Your task to perform on an android device: open app "LiveIn - Share Your Moment" (install if not already installed), go to login, and select forgot password Image 0: 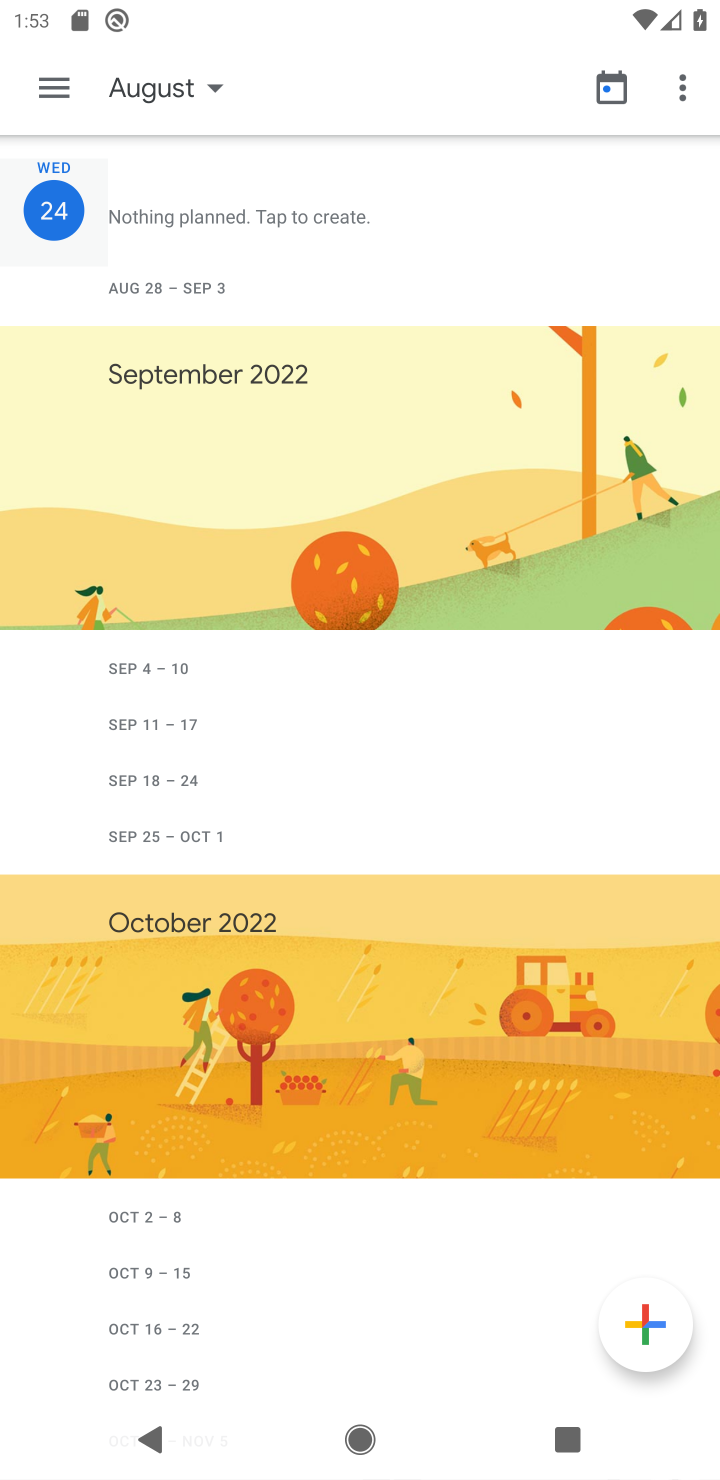
Step 0: press home button
Your task to perform on an android device: open app "LiveIn - Share Your Moment" (install if not already installed), go to login, and select forgot password Image 1: 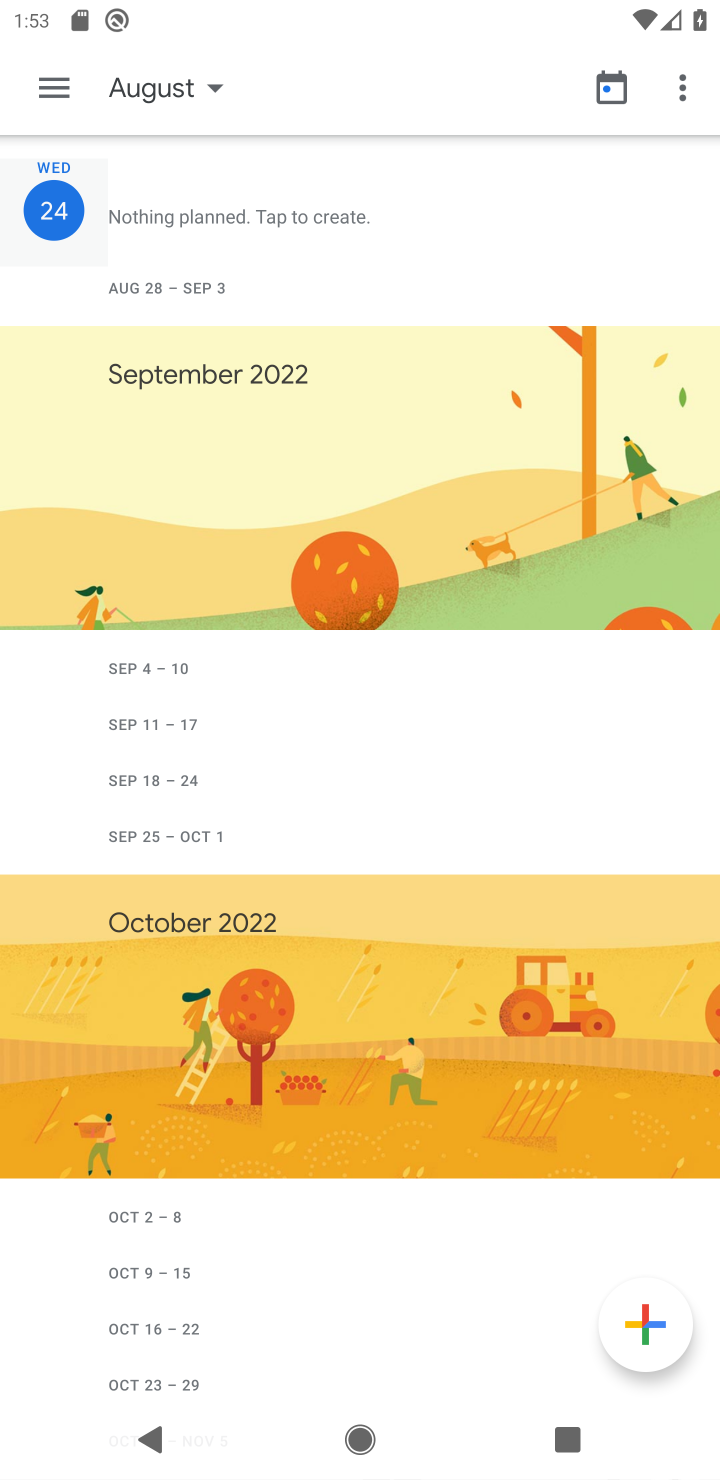
Step 1: press home button
Your task to perform on an android device: open app "LiveIn - Share Your Moment" (install if not already installed), go to login, and select forgot password Image 2: 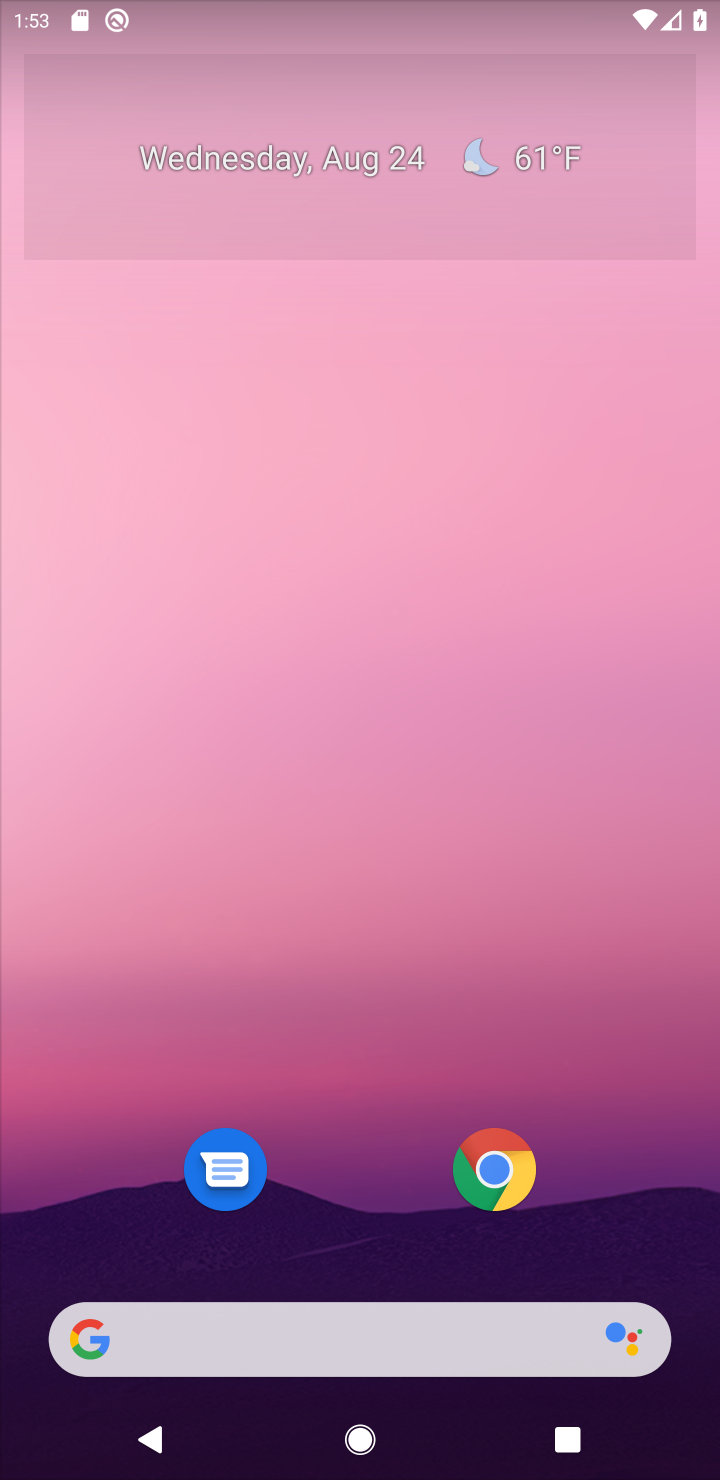
Step 2: drag from (427, 1269) to (275, 107)
Your task to perform on an android device: open app "LiveIn - Share Your Moment" (install if not already installed), go to login, and select forgot password Image 3: 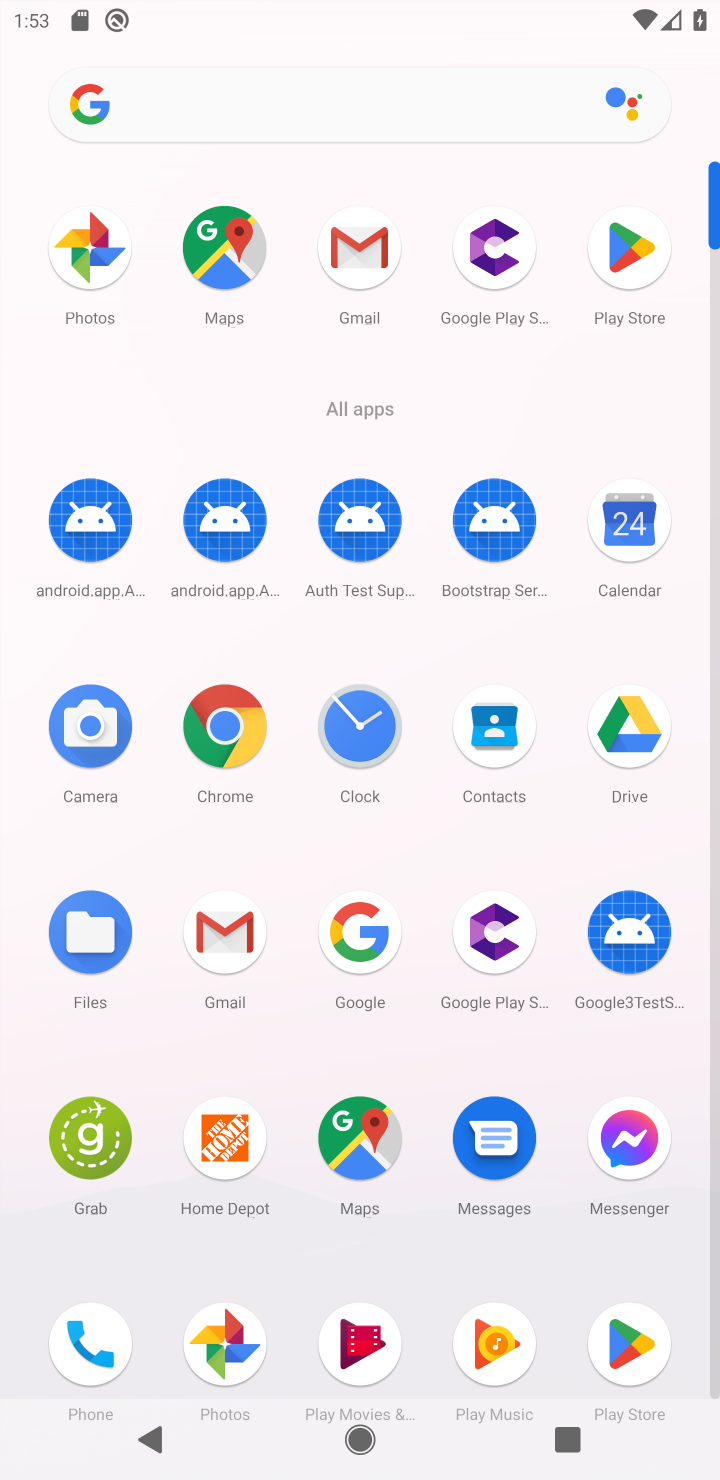
Step 3: click (659, 1380)
Your task to perform on an android device: open app "LiveIn - Share Your Moment" (install if not already installed), go to login, and select forgot password Image 4: 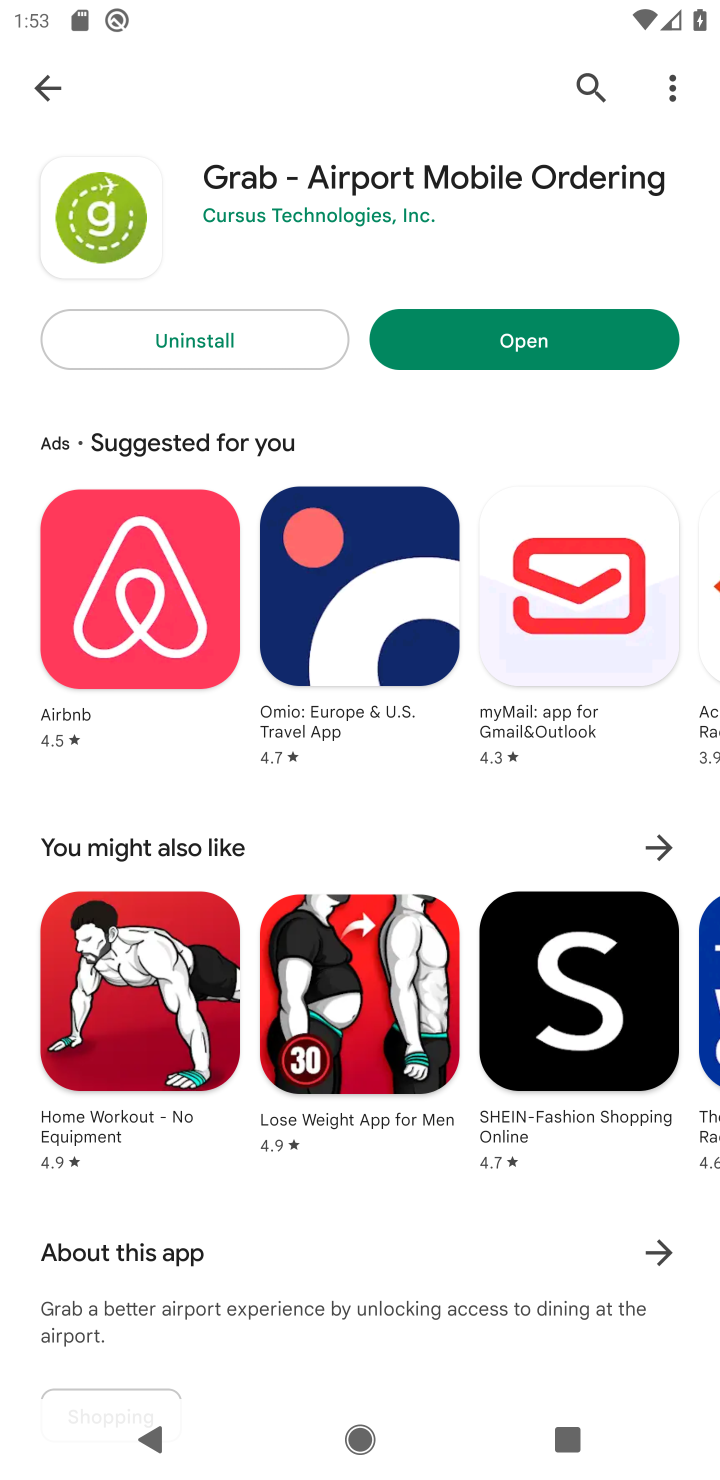
Step 4: click (35, 112)
Your task to perform on an android device: open app "LiveIn - Share Your Moment" (install if not already installed), go to login, and select forgot password Image 5: 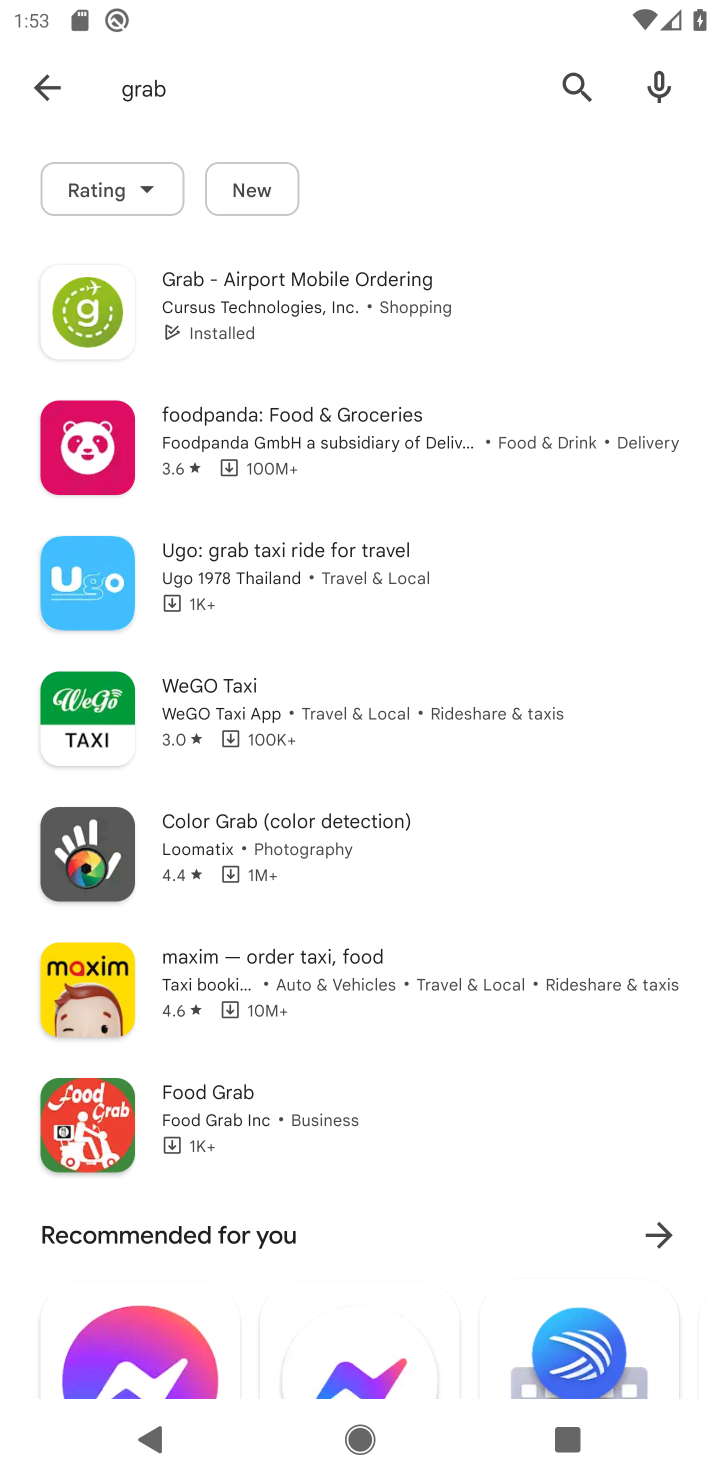
Step 5: click (577, 84)
Your task to perform on an android device: open app "LiveIn - Share Your Moment" (install if not already installed), go to login, and select forgot password Image 6: 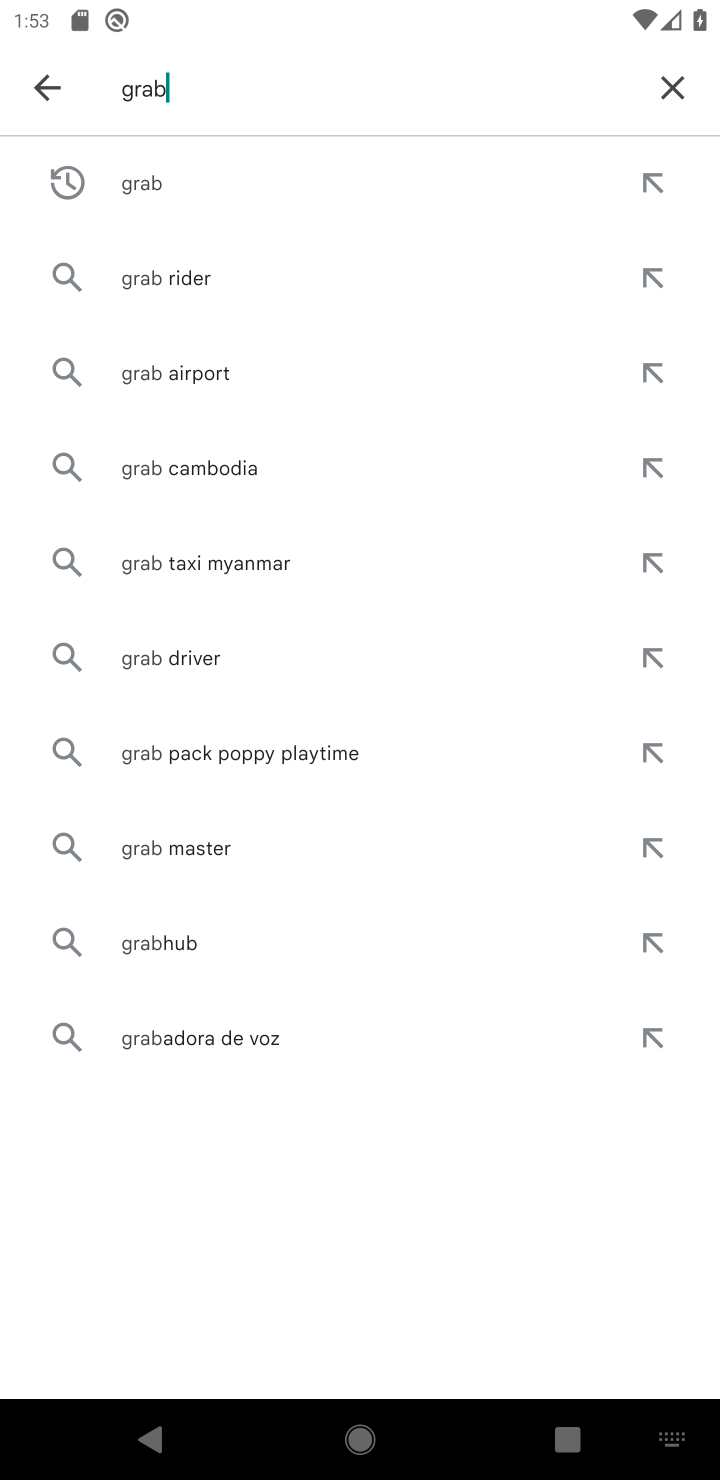
Step 6: click (664, 86)
Your task to perform on an android device: open app "LiveIn - Share Your Moment" (install if not already installed), go to login, and select forgot password Image 7: 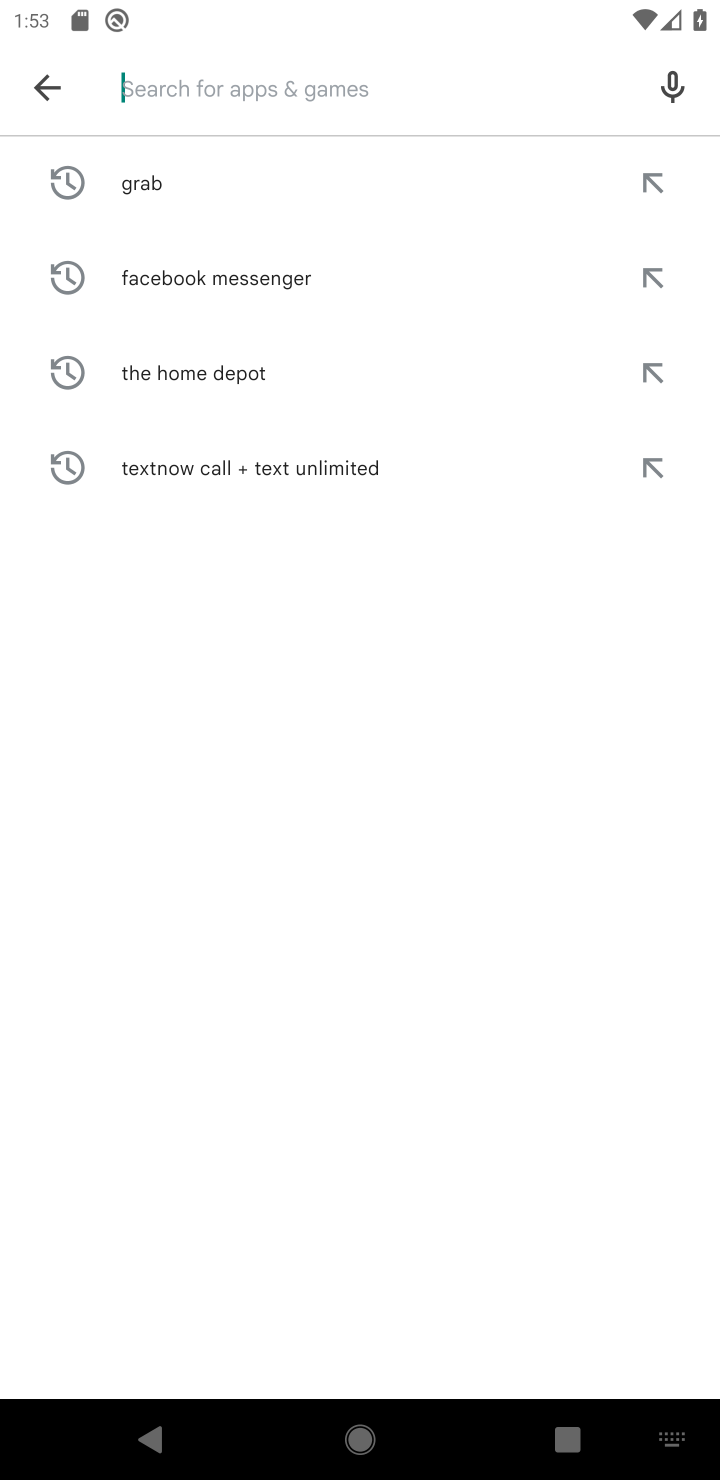
Step 7: type "LiveIn - Share Your Momen"
Your task to perform on an android device: open app "LiveIn - Share Your Moment" (install if not already installed), go to login, and select forgot password Image 8: 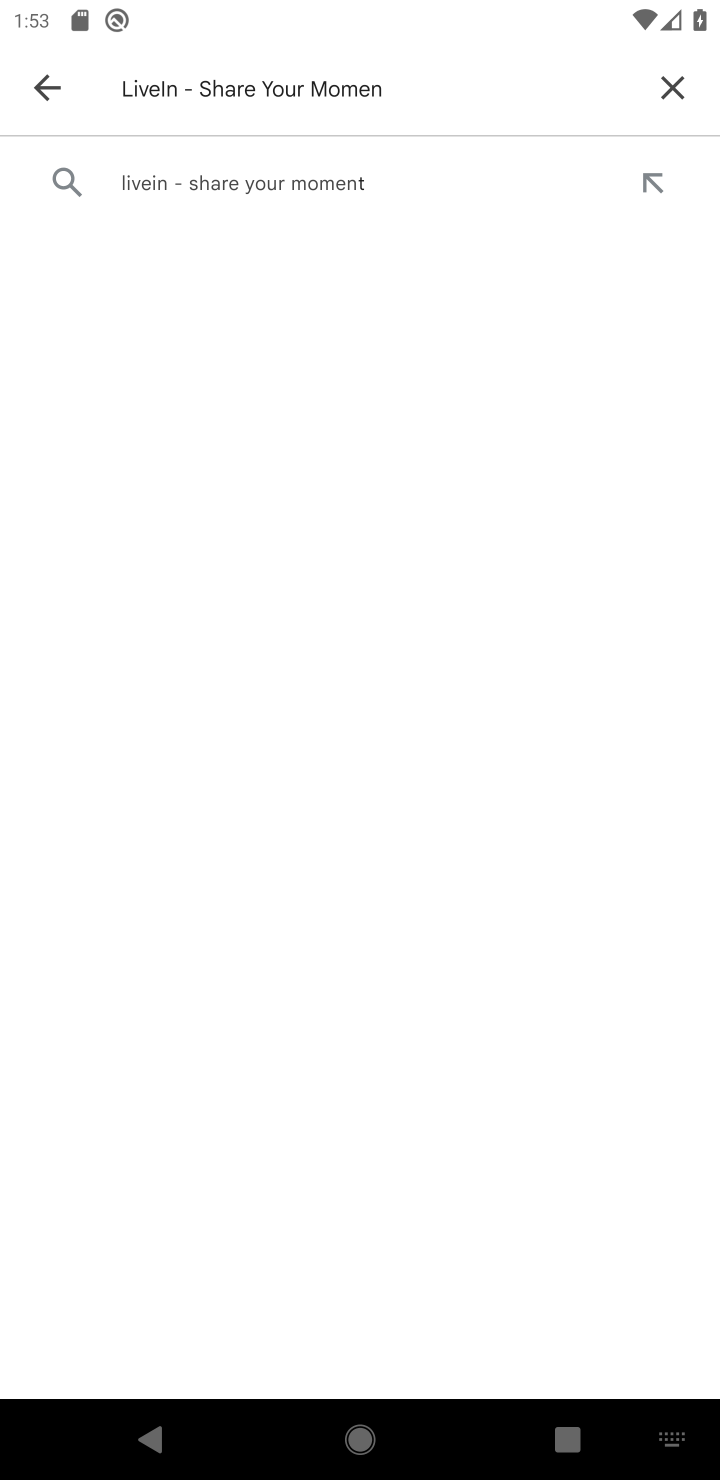
Step 8: click (213, 194)
Your task to perform on an android device: open app "LiveIn - Share Your Moment" (install if not already installed), go to login, and select forgot password Image 9: 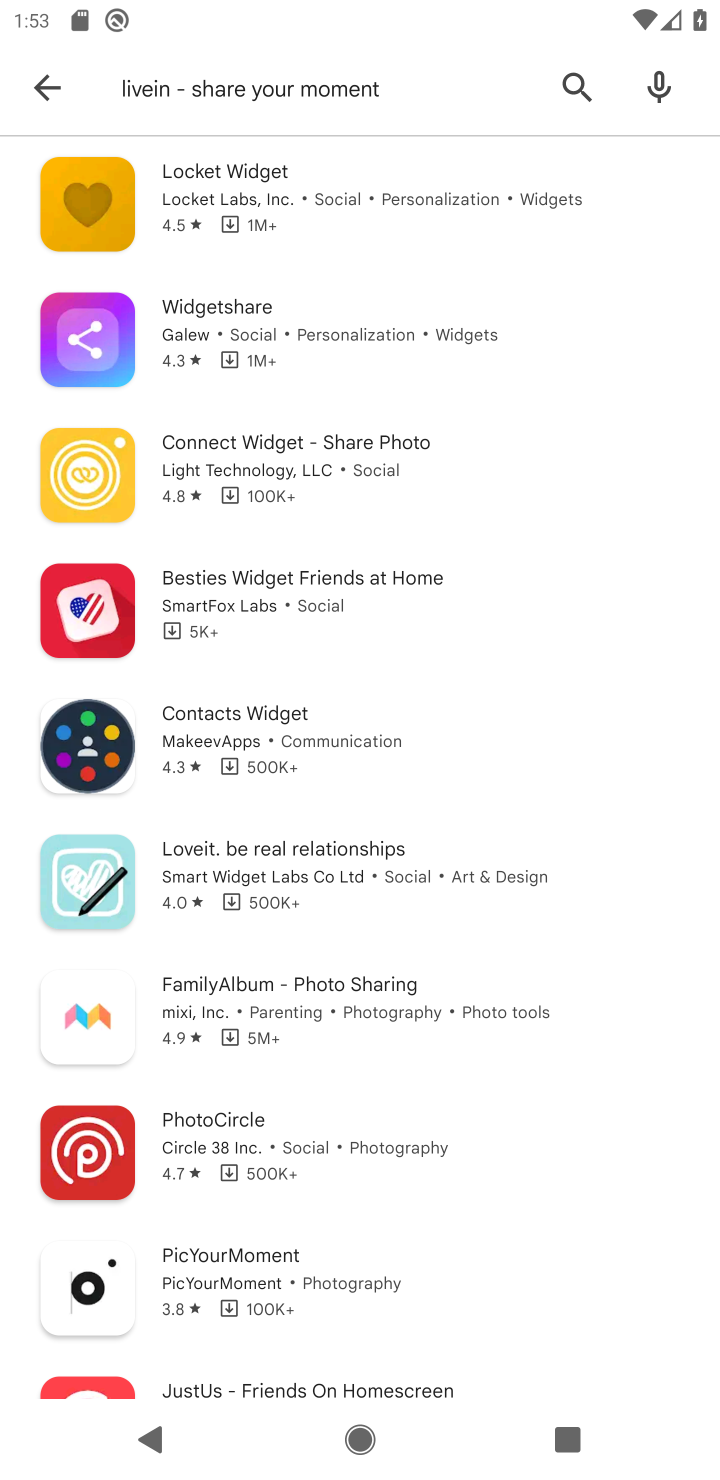
Step 9: task complete